Your task to perform on an android device: Open Chrome and go to the settings page Image 0: 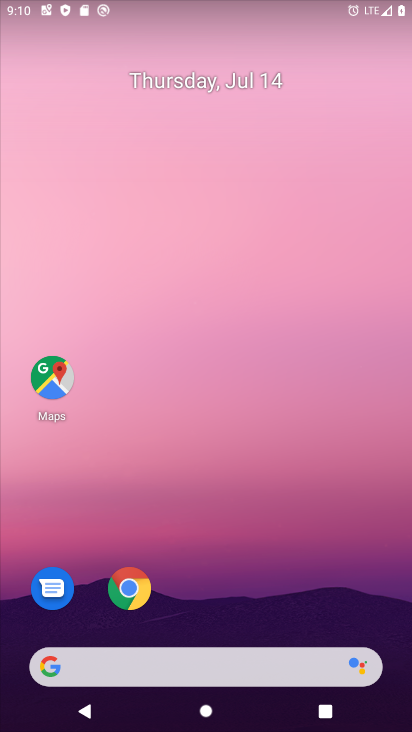
Step 0: drag from (309, 484) to (146, 7)
Your task to perform on an android device: Open Chrome and go to the settings page Image 1: 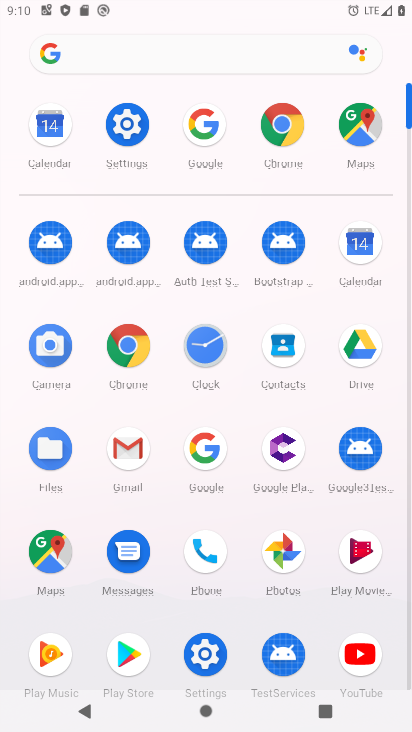
Step 1: click (295, 103)
Your task to perform on an android device: Open Chrome and go to the settings page Image 2: 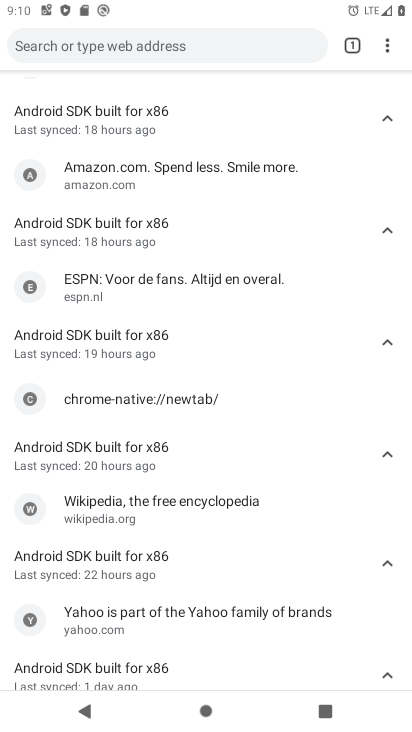
Step 2: task complete